Your task to perform on an android device: turn on bluetooth scan Image 0: 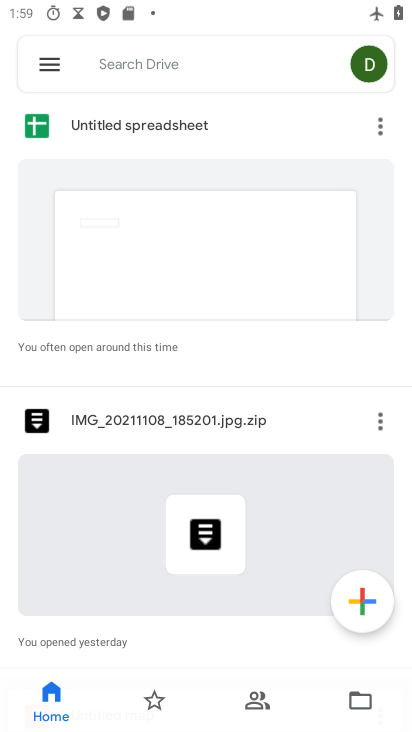
Step 0: press home button
Your task to perform on an android device: turn on bluetooth scan Image 1: 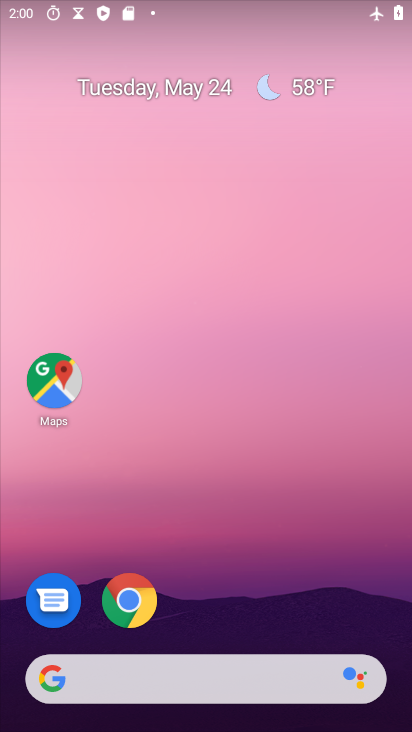
Step 1: drag from (256, 548) to (213, 39)
Your task to perform on an android device: turn on bluetooth scan Image 2: 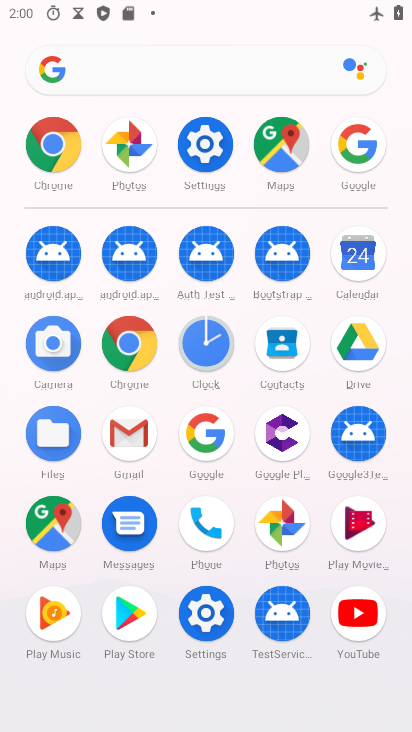
Step 2: click (208, 150)
Your task to perform on an android device: turn on bluetooth scan Image 3: 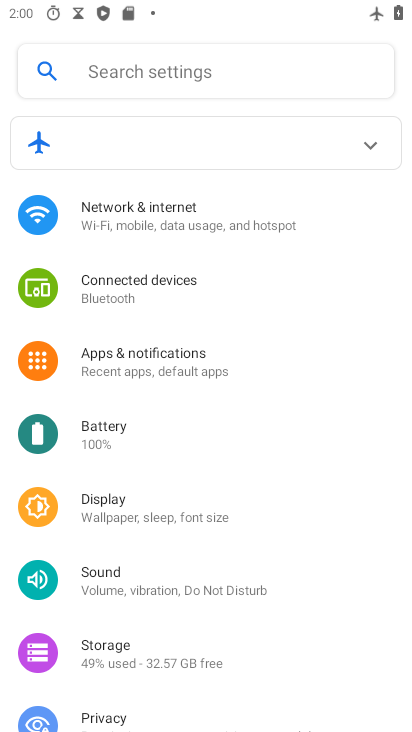
Step 3: drag from (257, 669) to (268, 336)
Your task to perform on an android device: turn on bluetooth scan Image 4: 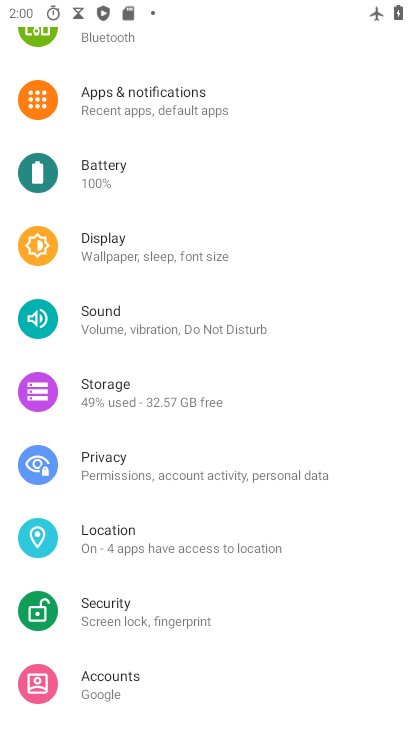
Step 4: click (180, 539)
Your task to perform on an android device: turn on bluetooth scan Image 5: 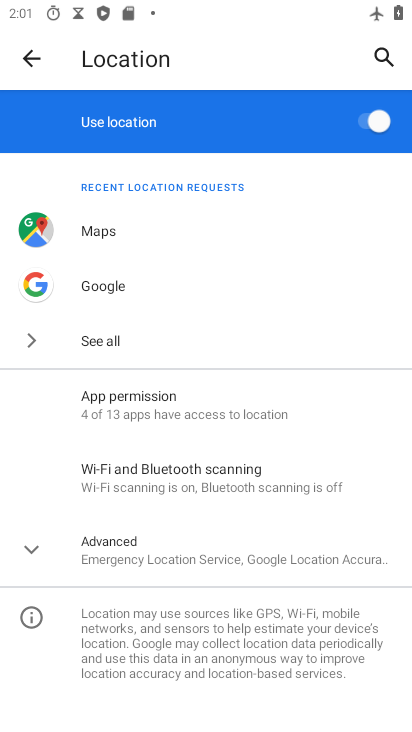
Step 5: click (190, 549)
Your task to perform on an android device: turn on bluetooth scan Image 6: 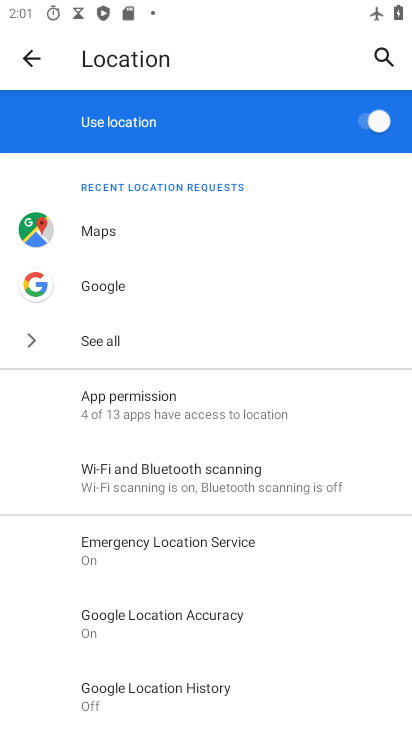
Step 6: click (214, 459)
Your task to perform on an android device: turn on bluetooth scan Image 7: 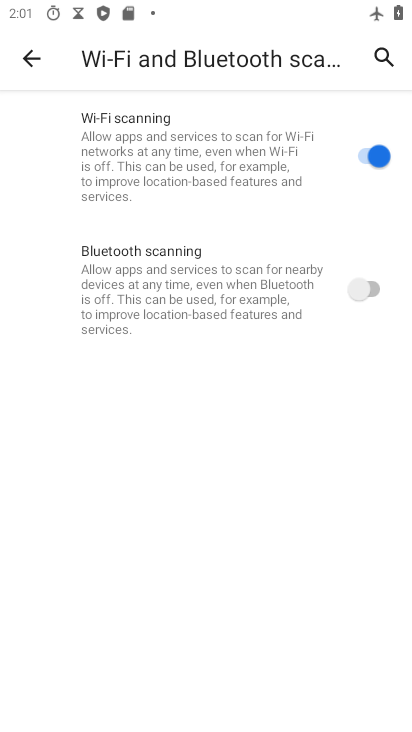
Step 7: click (362, 289)
Your task to perform on an android device: turn on bluetooth scan Image 8: 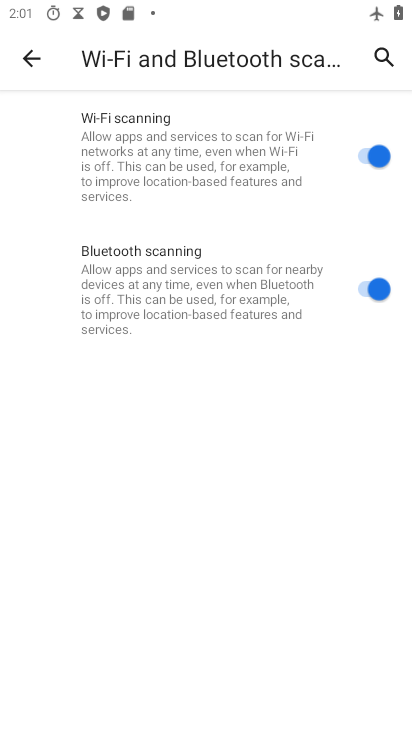
Step 8: task complete